Your task to perform on an android device: Open the Play Movies app and select the watchlist tab. Image 0: 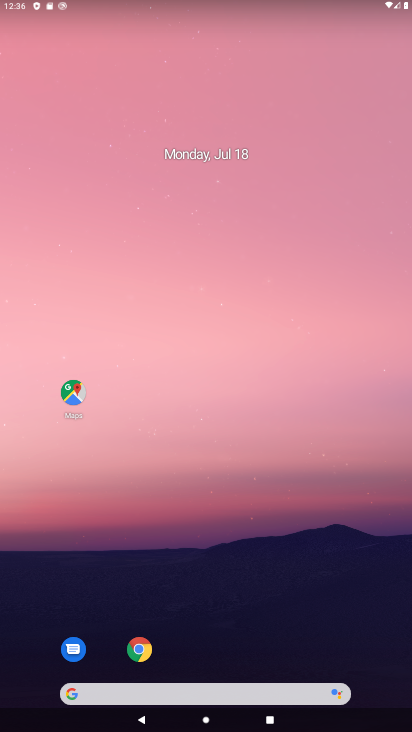
Step 0: drag from (92, 568) to (203, 174)
Your task to perform on an android device: Open the Play Movies app and select the watchlist tab. Image 1: 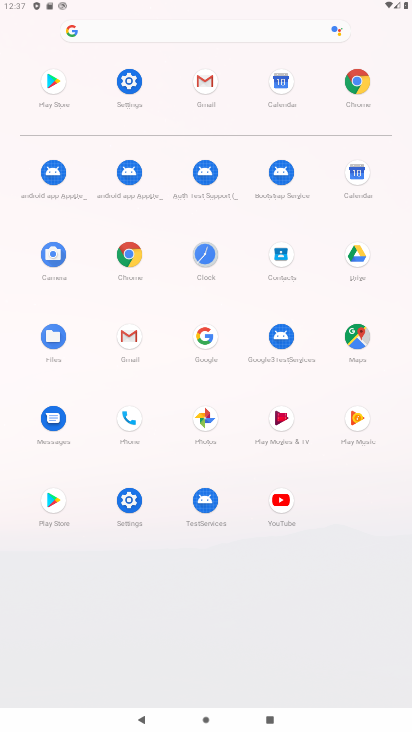
Step 1: click (285, 419)
Your task to perform on an android device: Open the Play Movies app and select the watchlist tab. Image 2: 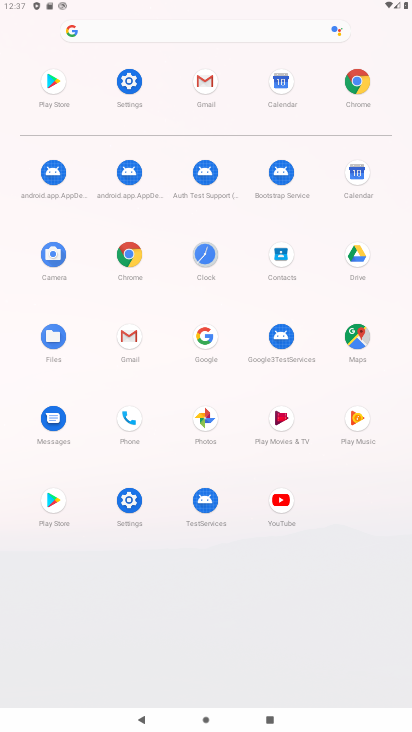
Step 2: click (285, 430)
Your task to perform on an android device: Open the Play Movies app and select the watchlist tab. Image 3: 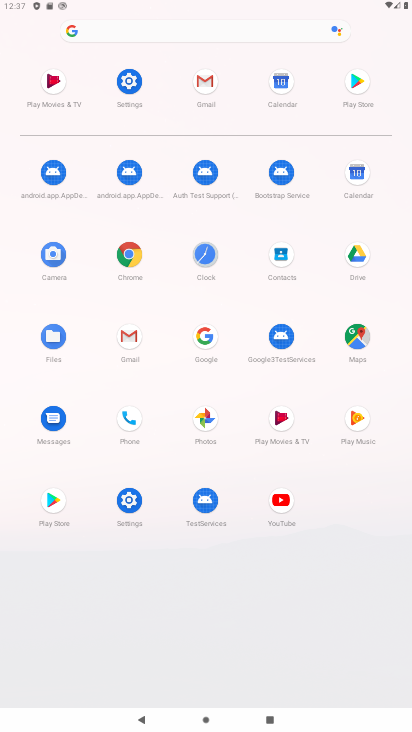
Step 3: task complete